Your task to perform on an android device: Open Chrome and go to settings Image 0: 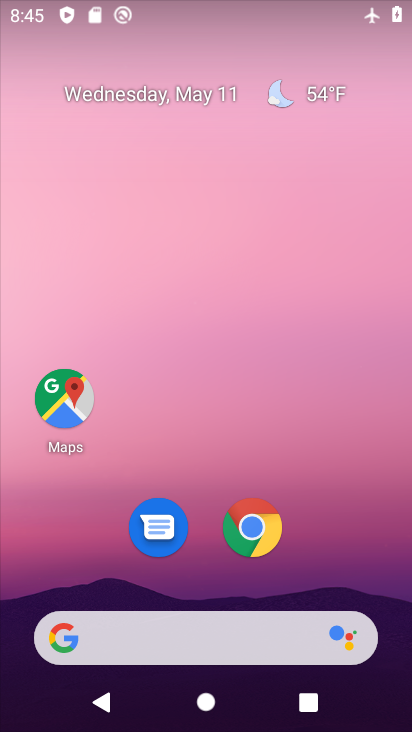
Step 0: click (263, 541)
Your task to perform on an android device: Open Chrome and go to settings Image 1: 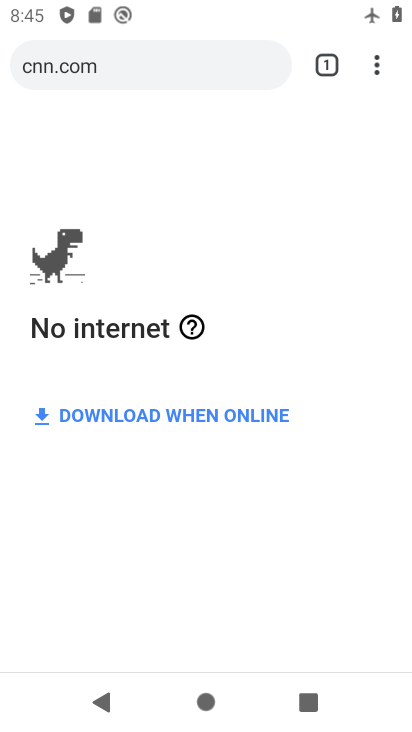
Step 1: task complete